Your task to perform on an android device: Go to calendar. Show me events next week Image 0: 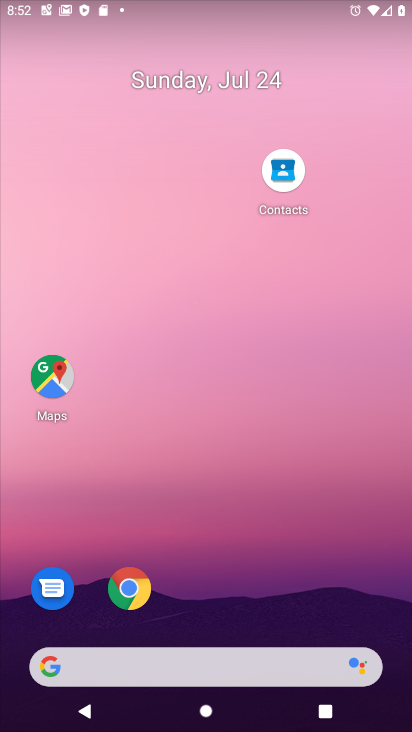
Step 0: press home button
Your task to perform on an android device: Go to calendar. Show me events next week Image 1: 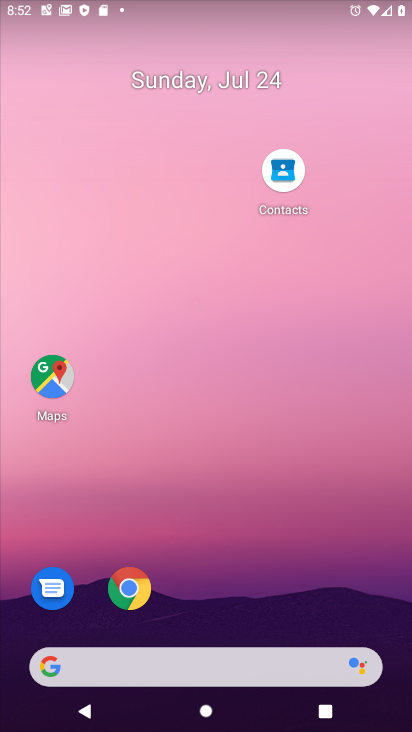
Step 1: drag from (200, 527) to (227, 48)
Your task to perform on an android device: Go to calendar. Show me events next week Image 2: 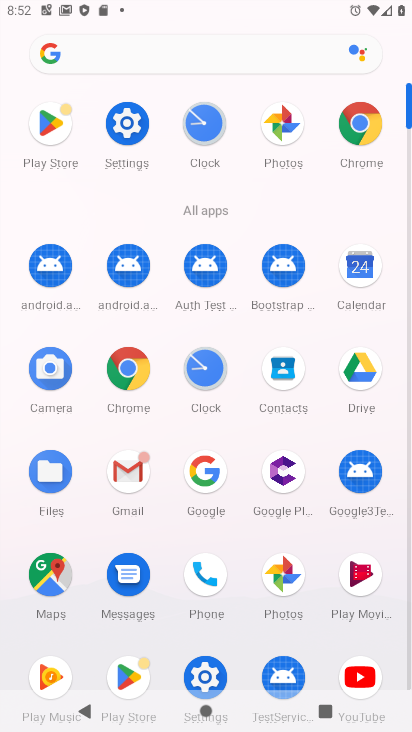
Step 2: click (353, 253)
Your task to perform on an android device: Go to calendar. Show me events next week Image 3: 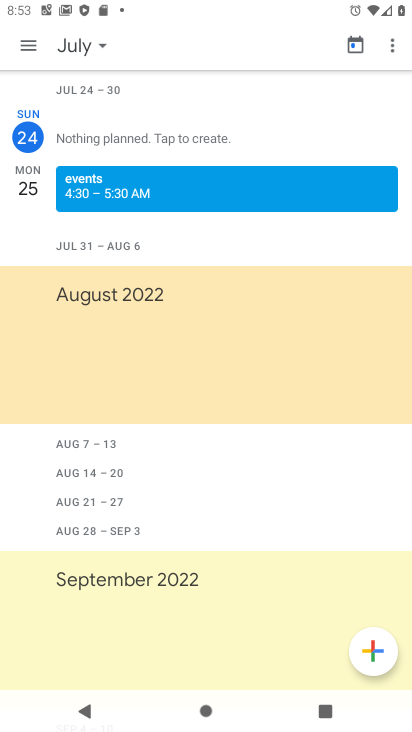
Step 3: click (24, 41)
Your task to perform on an android device: Go to calendar. Show me events next week Image 4: 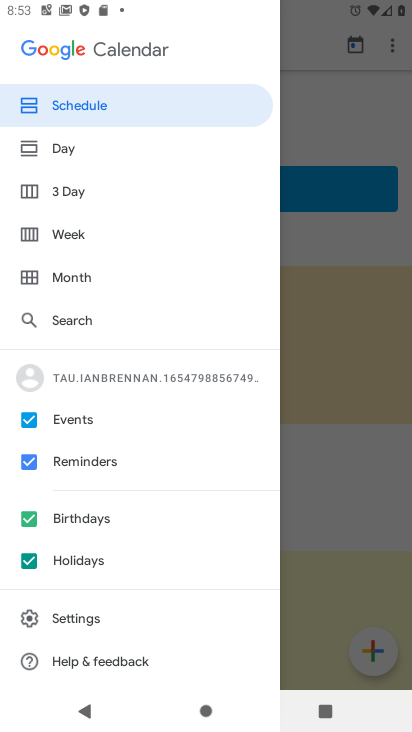
Step 4: click (67, 236)
Your task to perform on an android device: Go to calendar. Show me events next week Image 5: 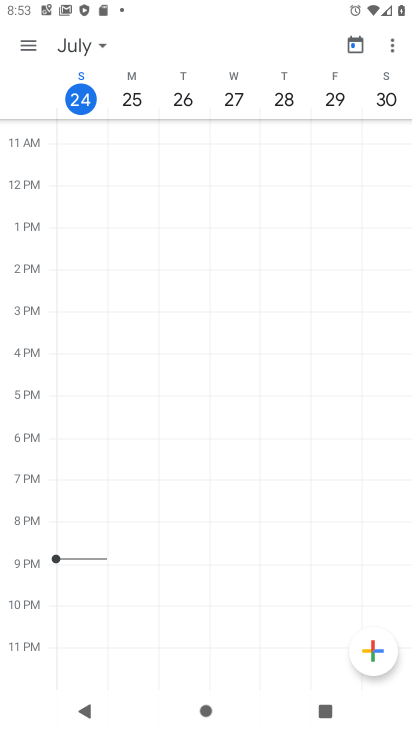
Step 5: click (18, 44)
Your task to perform on an android device: Go to calendar. Show me events next week Image 6: 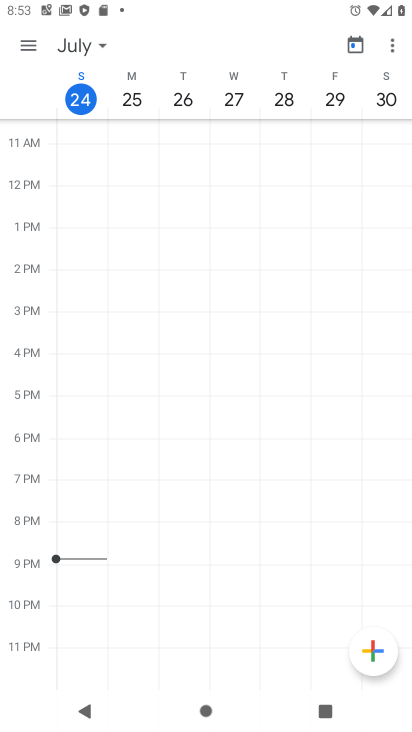
Step 6: click (25, 51)
Your task to perform on an android device: Go to calendar. Show me events next week Image 7: 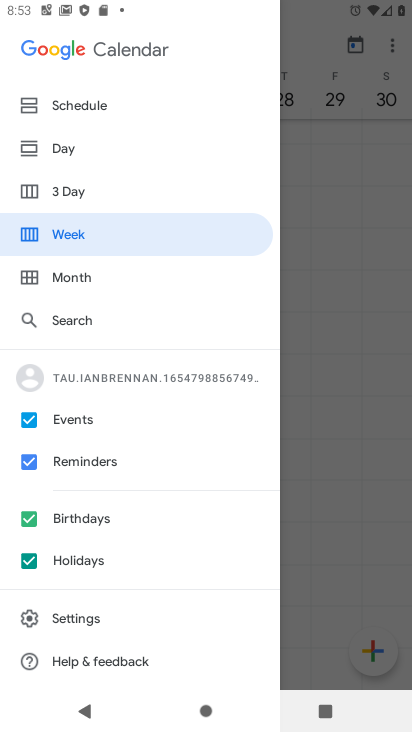
Step 7: click (24, 558)
Your task to perform on an android device: Go to calendar. Show me events next week Image 8: 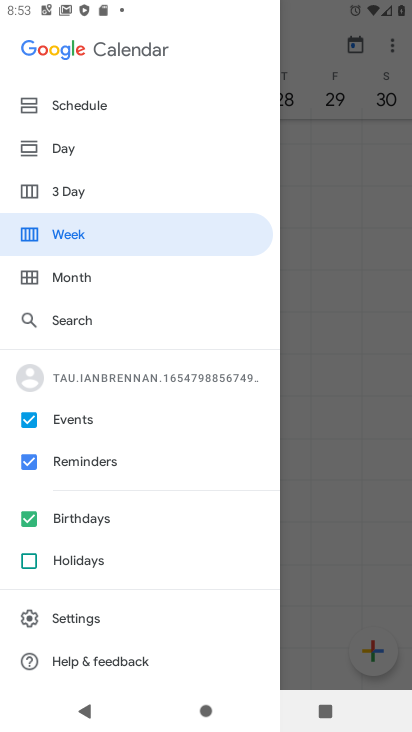
Step 8: click (30, 515)
Your task to perform on an android device: Go to calendar. Show me events next week Image 9: 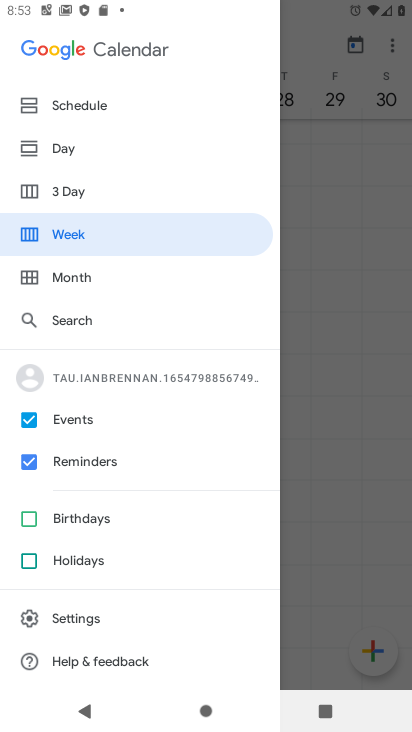
Step 9: click (28, 459)
Your task to perform on an android device: Go to calendar. Show me events next week Image 10: 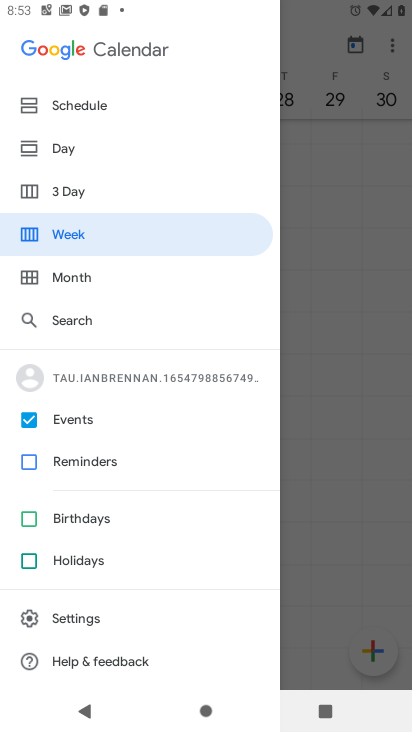
Step 10: click (55, 226)
Your task to perform on an android device: Go to calendar. Show me events next week Image 11: 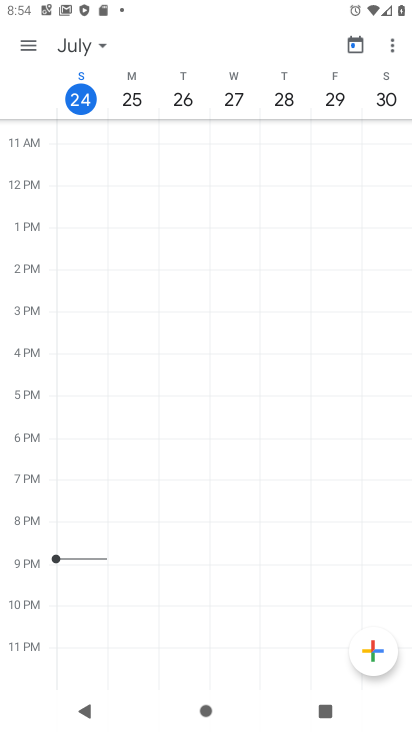
Step 11: drag from (383, 101) to (6, 100)
Your task to perform on an android device: Go to calendar. Show me events next week Image 12: 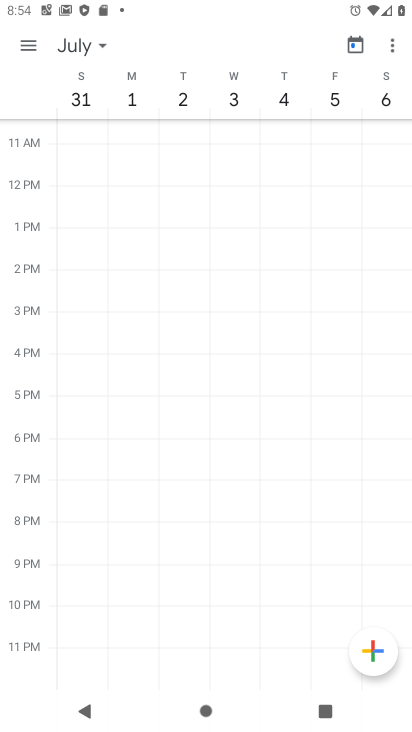
Step 12: click (131, 102)
Your task to perform on an android device: Go to calendar. Show me events next week Image 13: 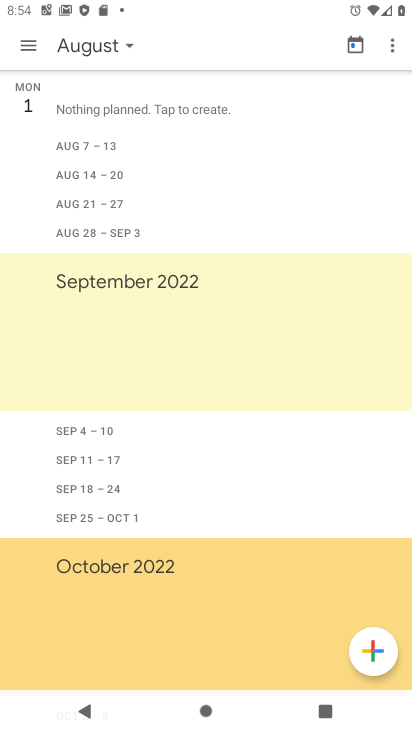
Step 13: task complete